Your task to perform on an android device: Open Google Maps and go to "Timeline" Image 0: 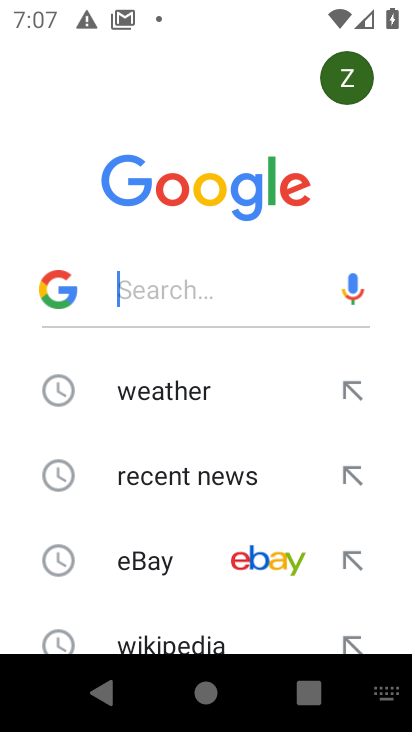
Step 0: task complete